Your task to perform on an android device: Search for sushi restaurants on Maps Image 0: 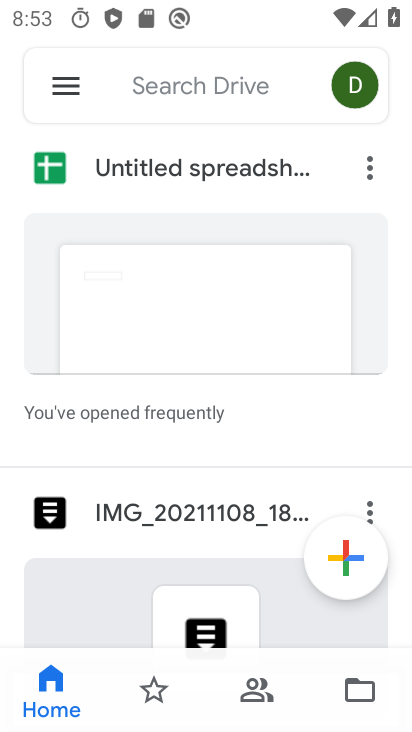
Step 0: press home button
Your task to perform on an android device: Search for sushi restaurants on Maps Image 1: 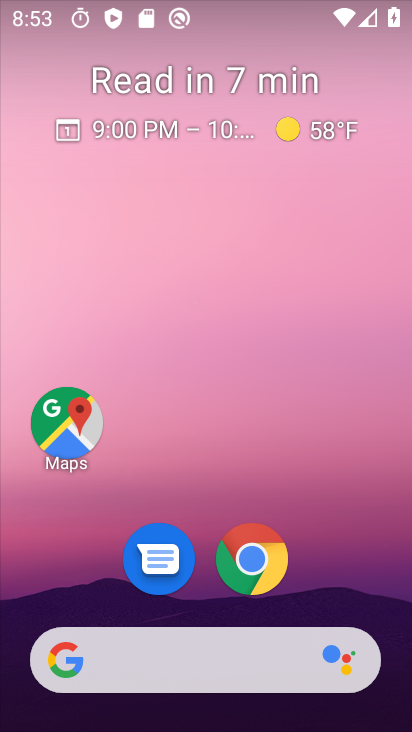
Step 1: click (65, 426)
Your task to perform on an android device: Search for sushi restaurants on Maps Image 2: 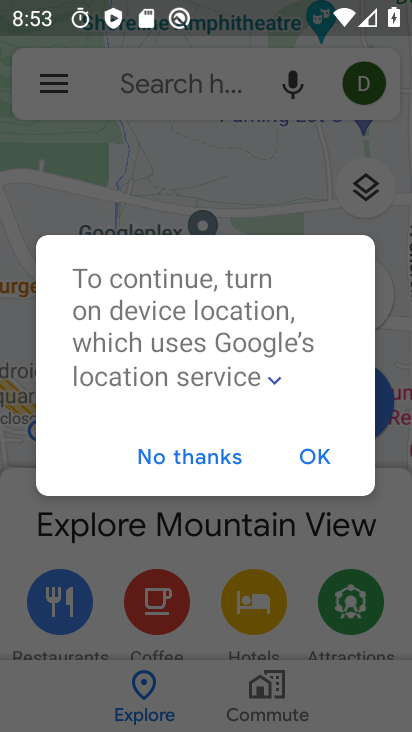
Step 2: click (177, 458)
Your task to perform on an android device: Search for sushi restaurants on Maps Image 3: 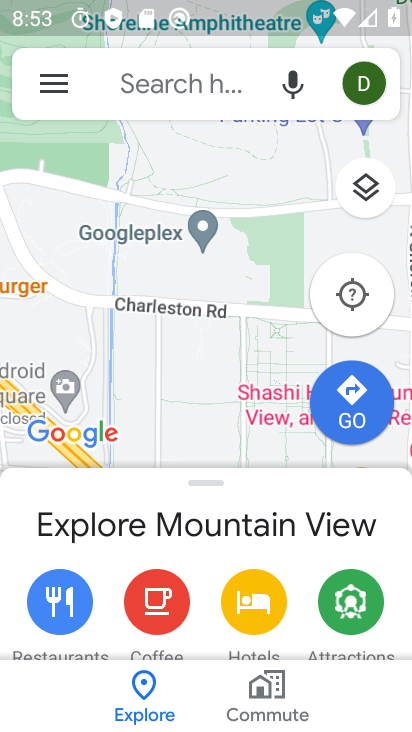
Step 3: click (169, 91)
Your task to perform on an android device: Search for sushi restaurants on Maps Image 4: 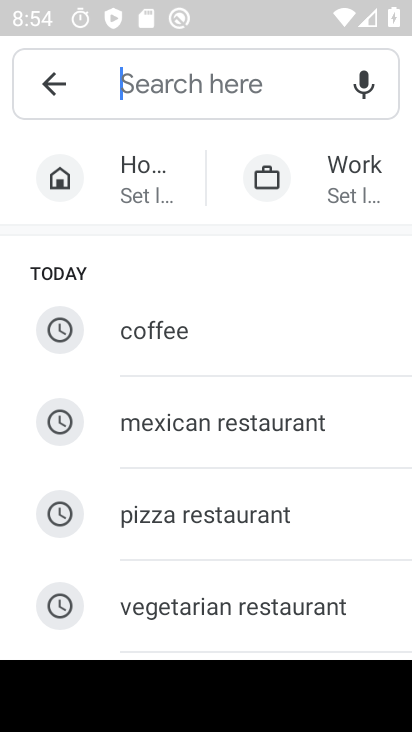
Step 4: type "sushi restaurants"
Your task to perform on an android device: Search for sushi restaurants on Maps Image 5: 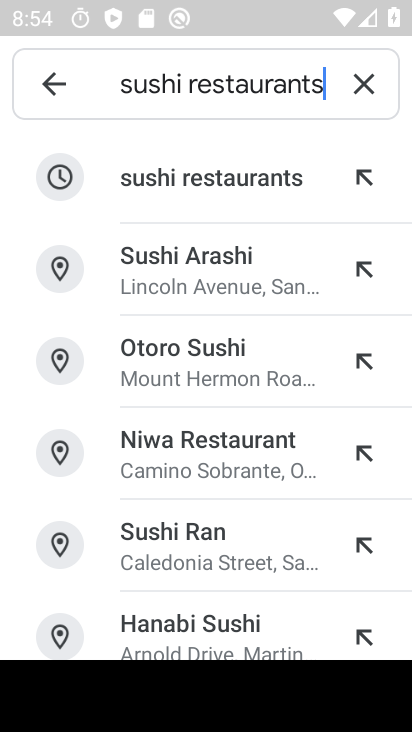
Step 5: click (236, 183)
Your task to perform on an android device: Search for sushi restaurants on Maps Image 6: 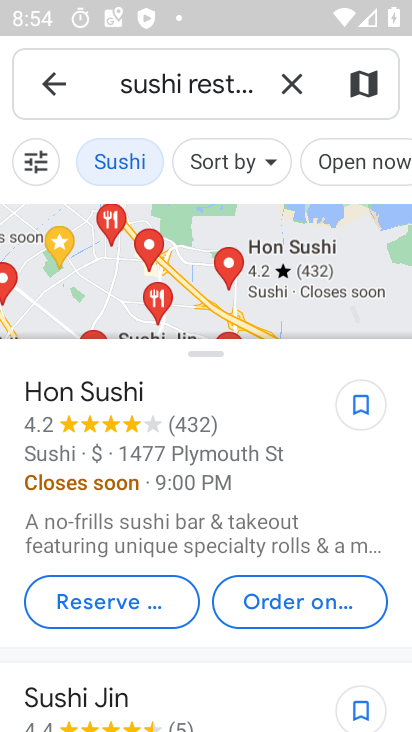
Step 6: task complete